Your task to perform on an android device: Search for razer nari on ebay, select the first entry, add it to the cart, then select checkout. Image 0: 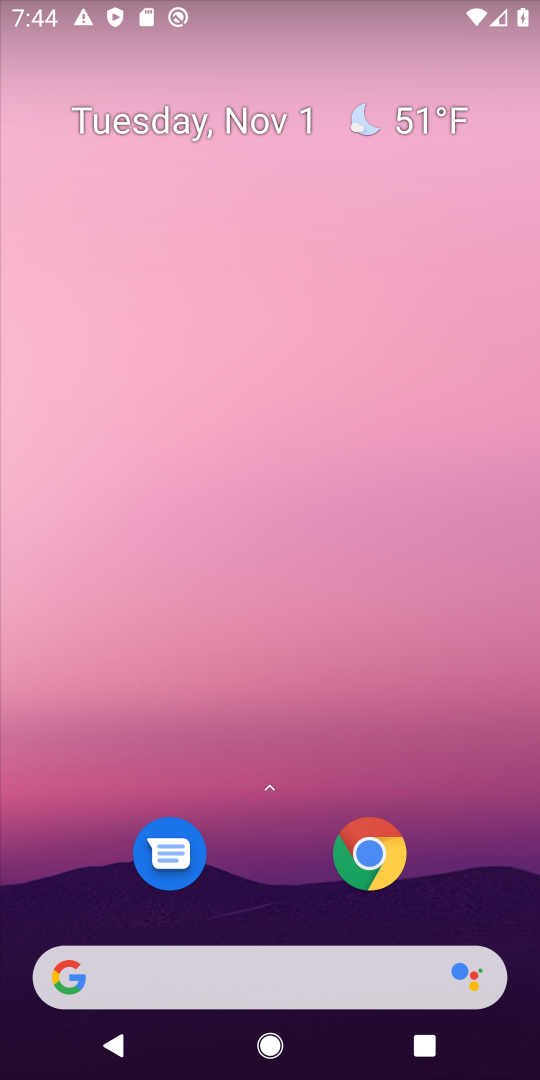
Step 0: click (318, 982)
Your task to perform on an android device: Search for razer nari on ebay, select the first entry, add it to the cart, then select checkout. Image 1: 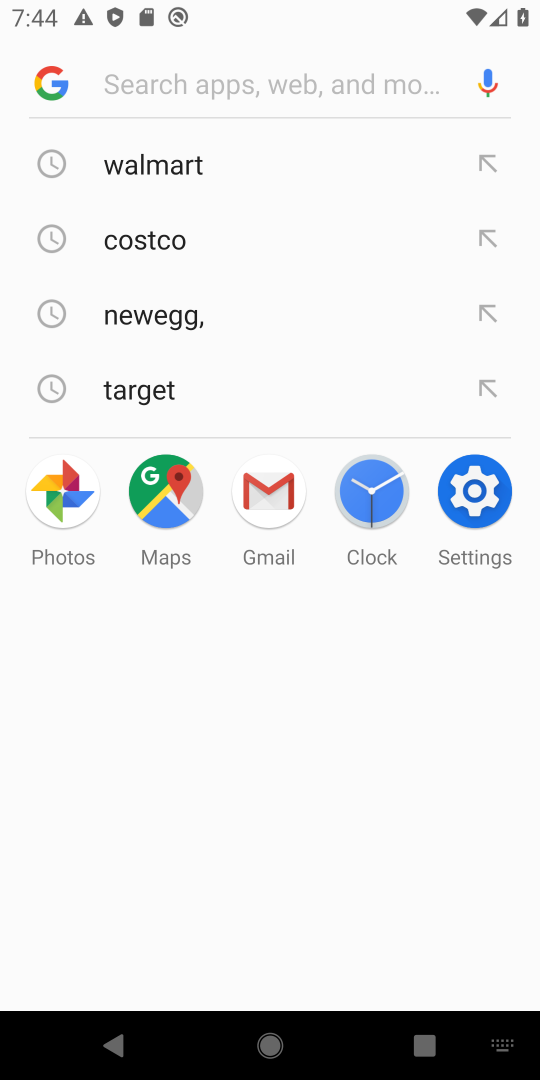
Step 1: type "ebay"
Your task to perform on an android device: Search for razer nari on ebay, select the first entry, add it to the cart, then select checkout. Image 2: 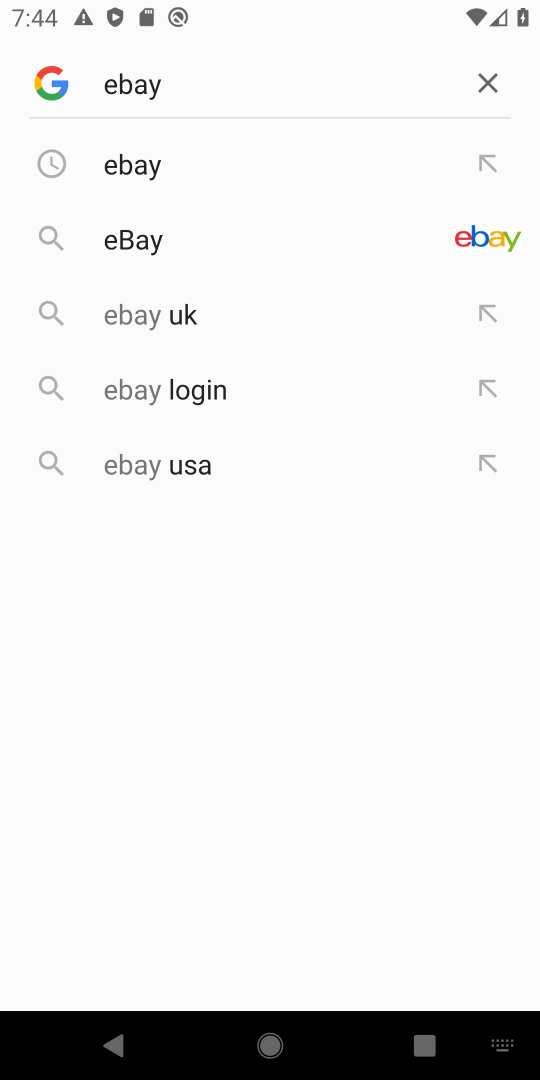
Step 2: click (138, 192)
Your task to perform on an android device: Search for razer nari on ebay, select the first entry, add it to the cart, then select checkout. Image 3: 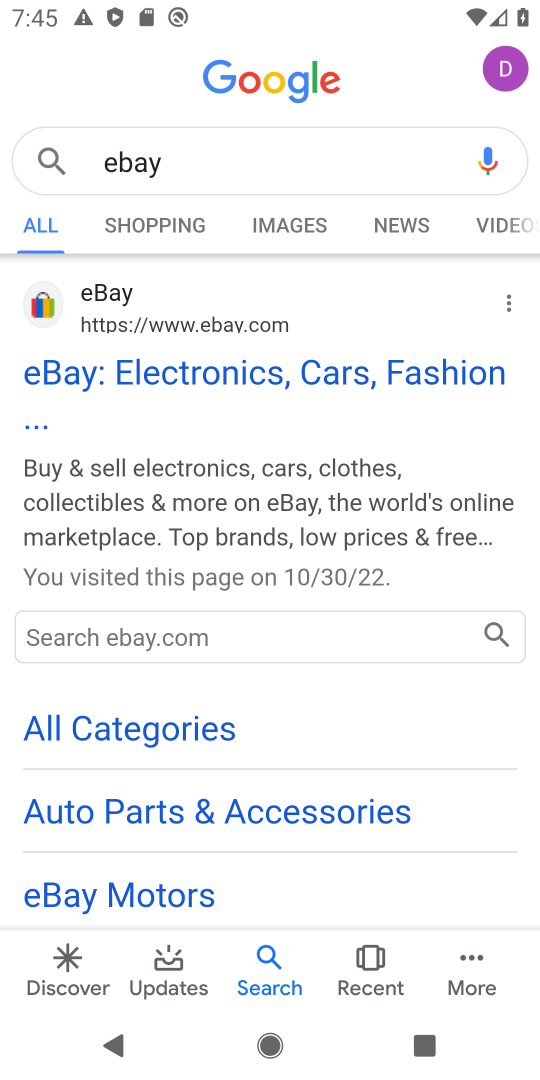
Step 3: click (192, 382)
Your task to perform on an android device: Search for razer nari on ebay, select the first entry, add it to the cart, then select checkout. Image 4: 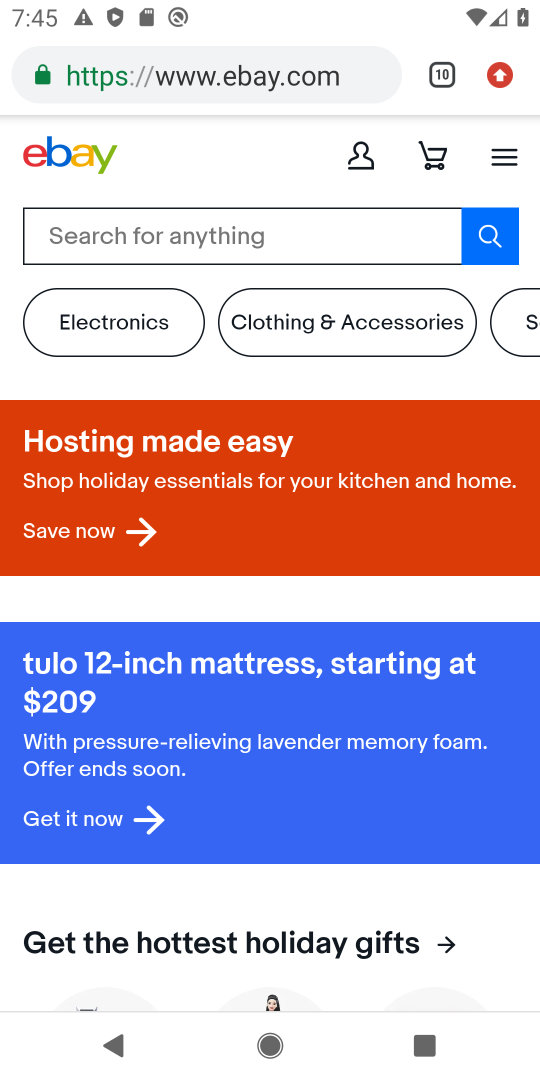
Step 4: click (181, 215)
Your task to perform on an android device: Search for razer nari on ebay, select the first entry, add it to the cart, then select checkout. Image 5: 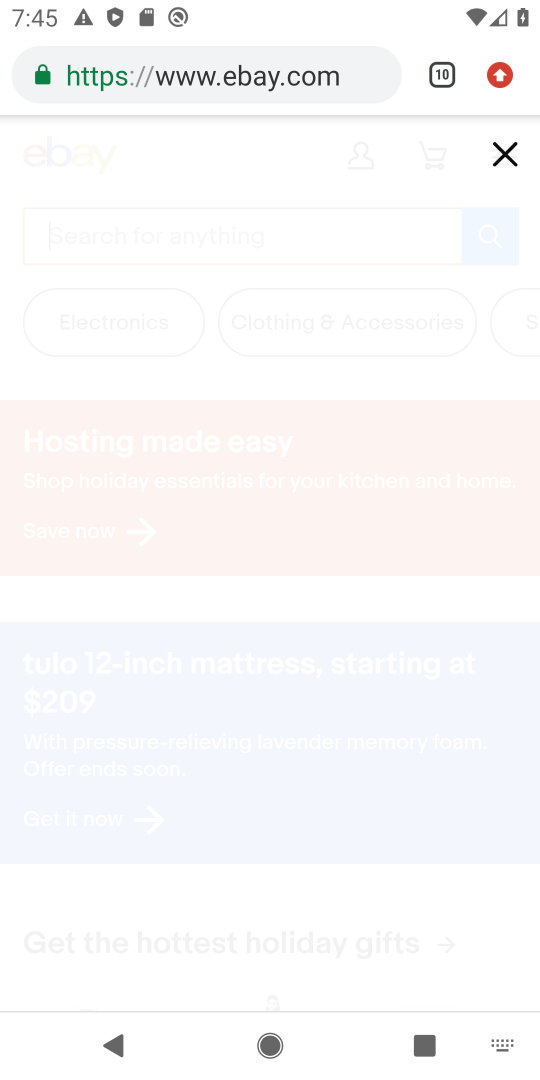
Step 5: click (164, 235)
Your task to perform on an android device: Search for razer nari on ebay, select the first entry, add it to the cart, then select checkout. Image 6: 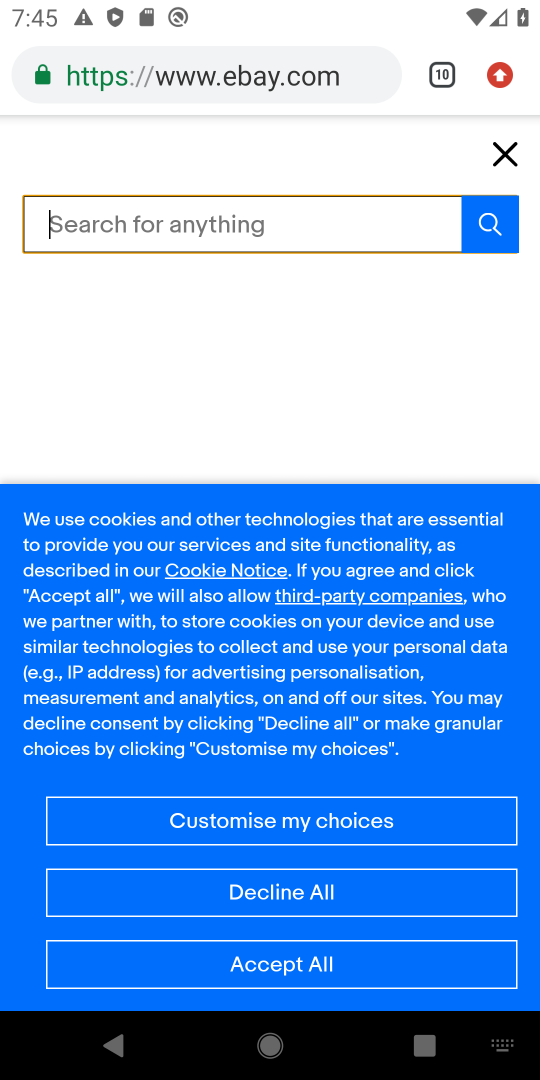
Step 6: type "razer nari"
Your task to perform on an android device: Search for razer nari on ebay, select the first entry, add it to the cart, then select checkout. Image 7: 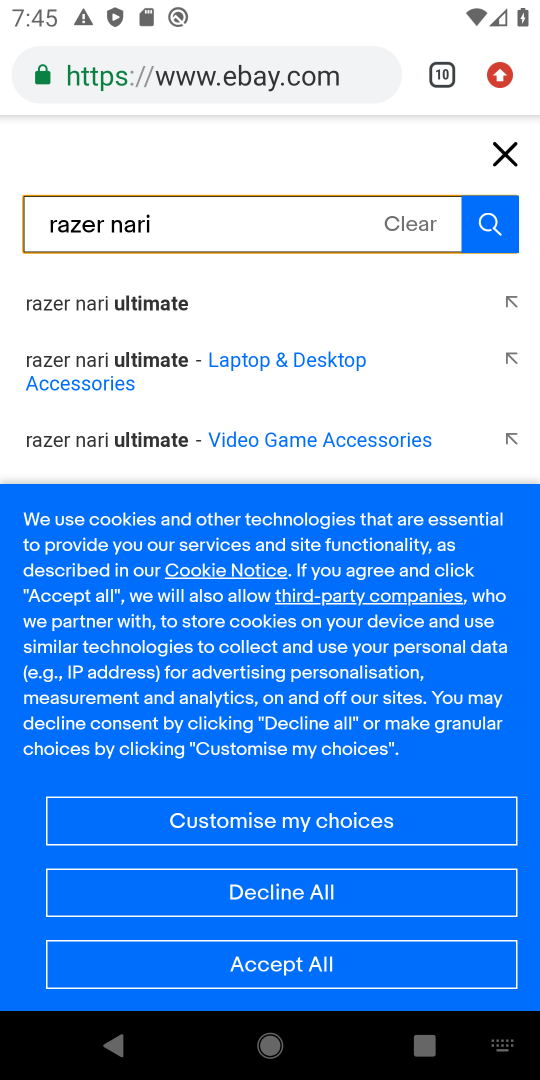
Step 7: click (503, 224)
Your task to perform on an android device: Search for razer nari on ebay, select the first entry, add it to the cart, then select checkout. Image 8: 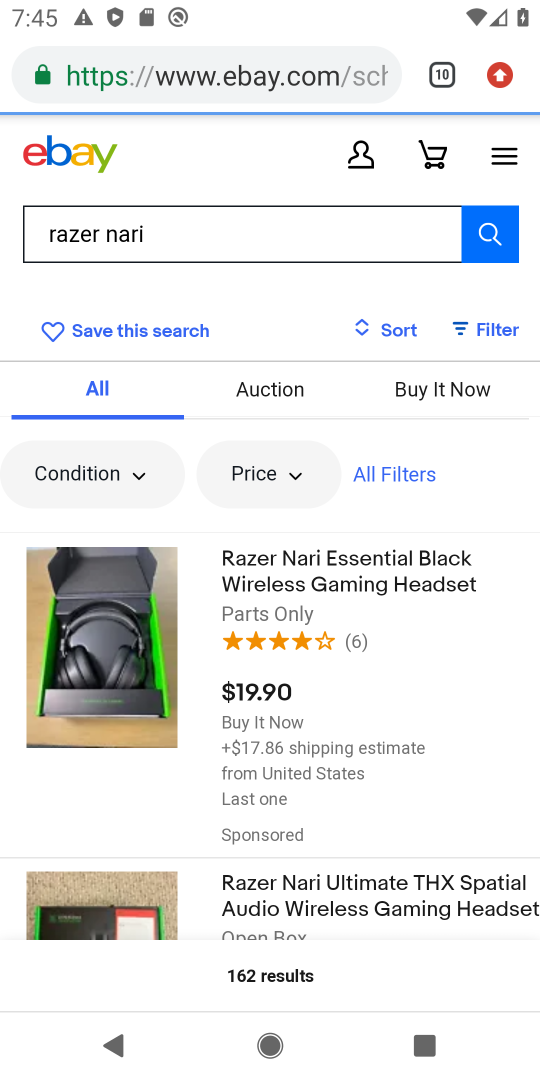
Step 8: click (300, 608)
Your task to perform on an android device: Search for razer nari on ebay, select the first entry, add it to the cart, then select checkout. Image 9: 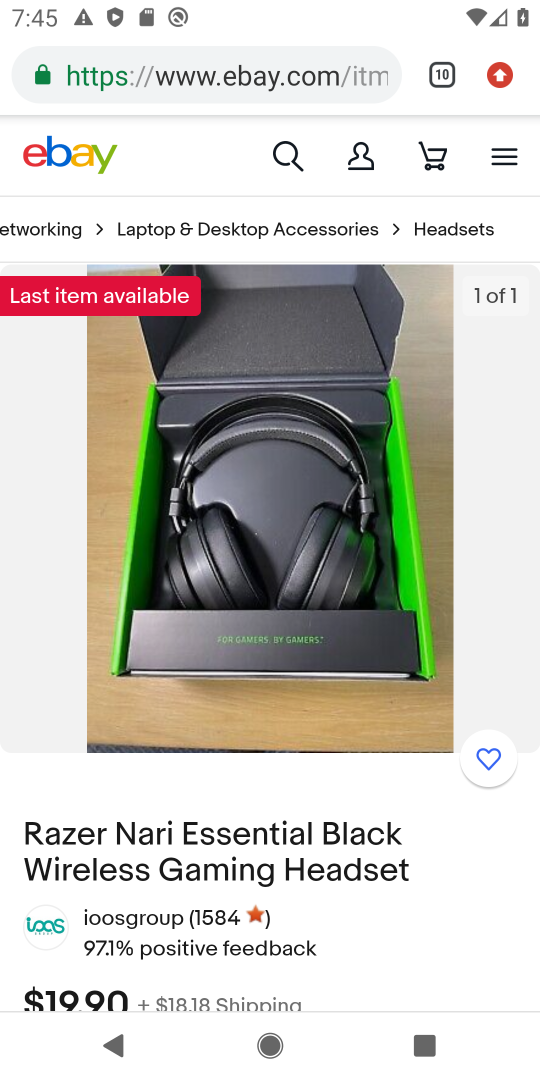
Step 9: drag from (316, 806) to (303, 392)
Your task to perform on an android device: Search for razer nari on ebay, select the first entry, add it to the cart, then select checkout. Image 10: 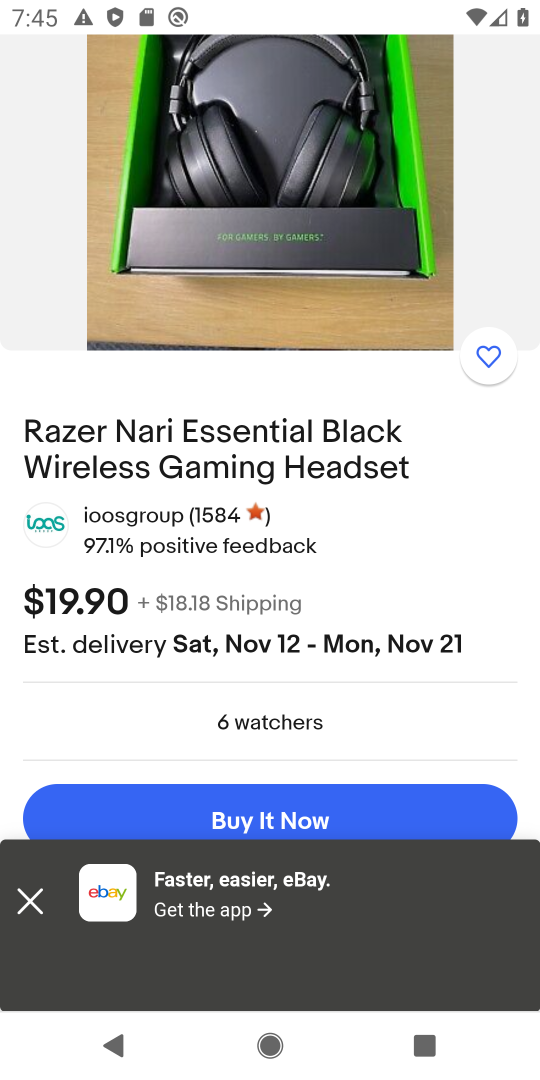
Step 10: click (19, 891)
Your task to perform on an android device: Search for razer nari on ebay, select the first entry, add it to the cart, then select checkout. Image 11: 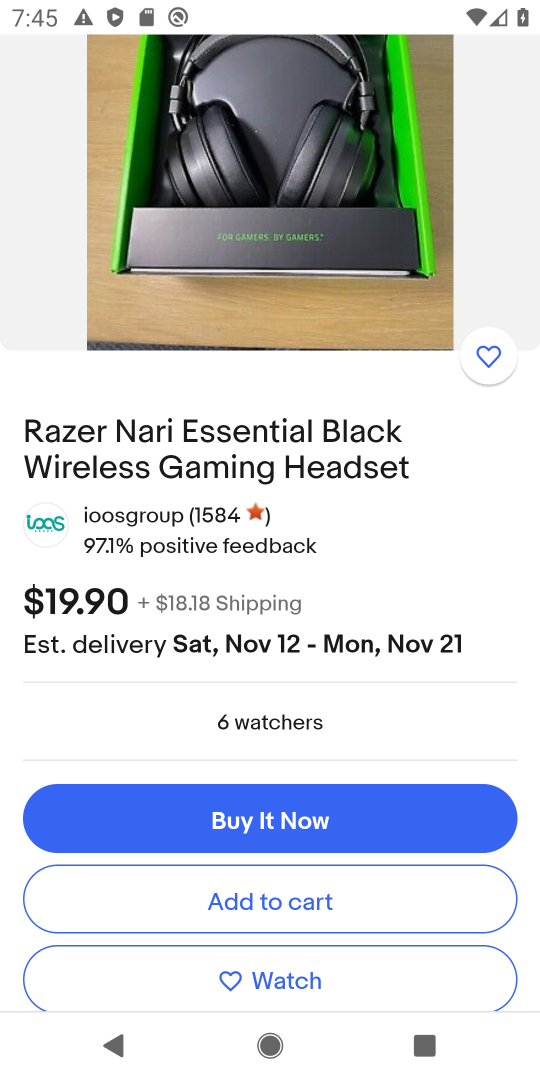
Step 11: click (335, 909)
Your task to perform on an android device: Search for razer nari on ebay, select the first entry, add it to the cart, then select checkout. Image 12: 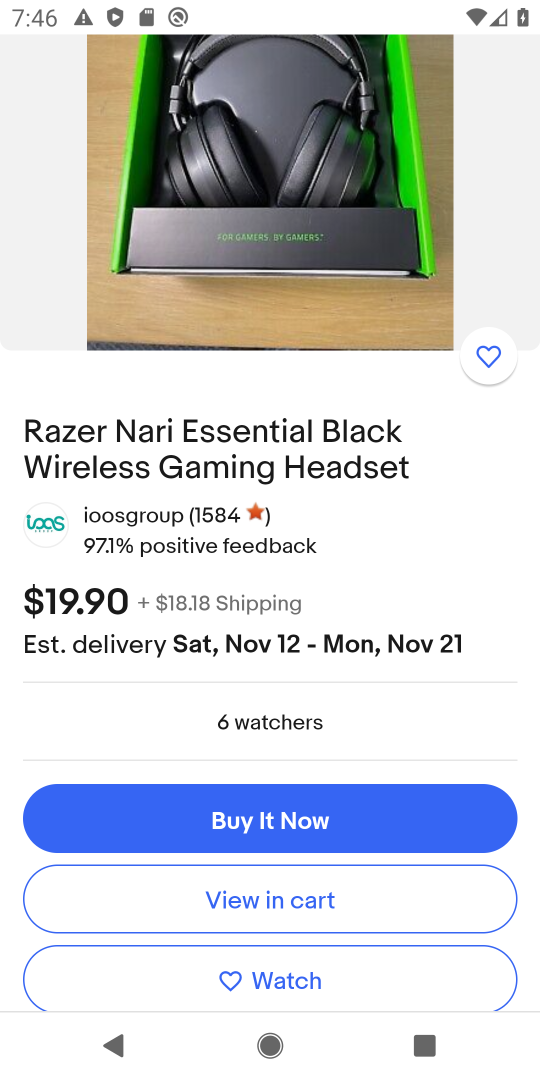
Step 12: task complete